Your task to perform on an android device: Open wifi settings Image 0: 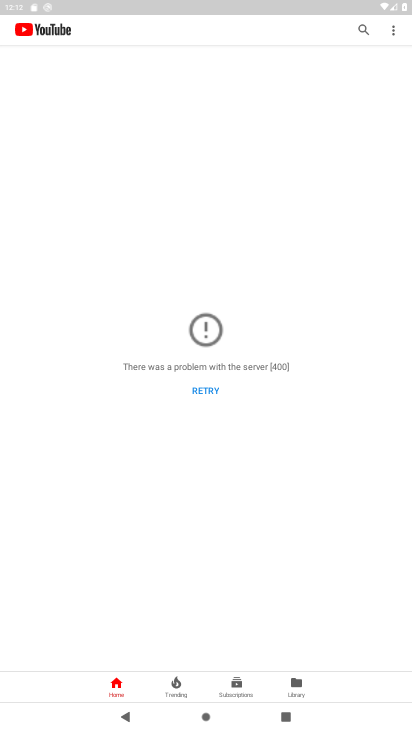
Step 0: press home button
Your task to perform on an android device: Open wifi settings Image 1: 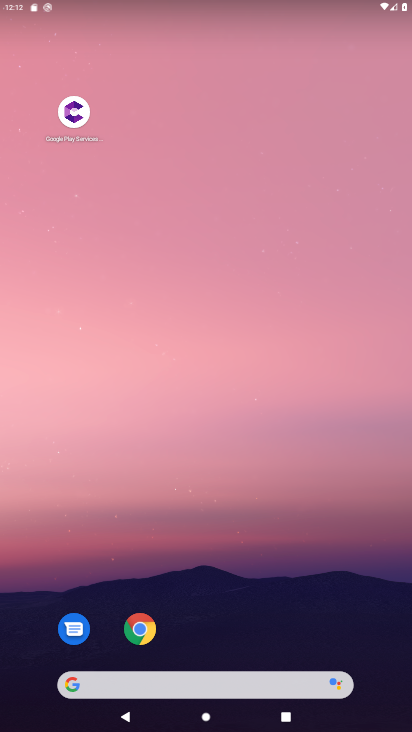
Step 1: drag from (271, 615) to (229, 95)
Your task to perform on an android device: Open wifi settings Image 2: 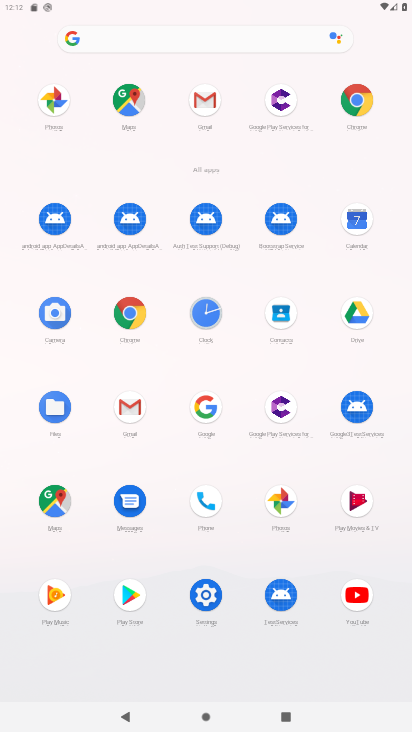
Step 2: click (208, 615)
Your task to perform on an android device: Open wifi settings Image 3: 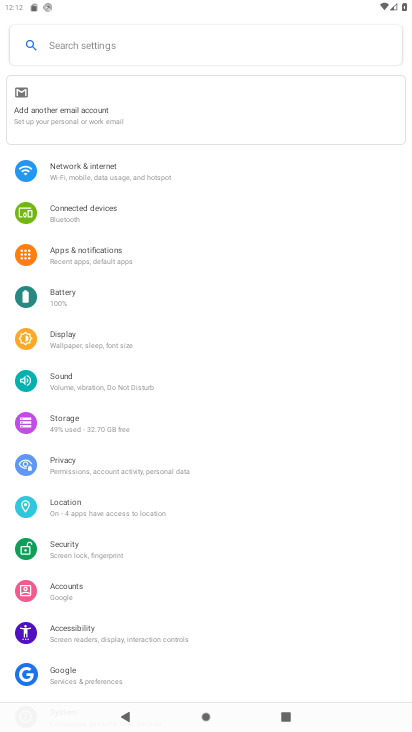
Step 3: click (163, 179)
Your task to perform on an android device: Open wifi settings Image 4: 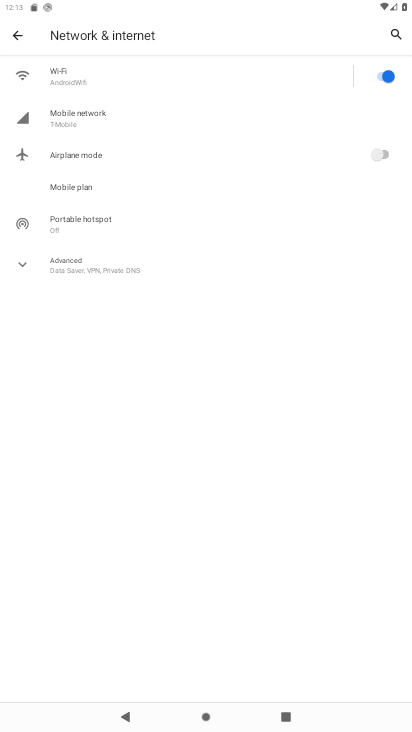
Step 4: click (169, 77)
Your task to perform on an android device: Open wifi settings Image 5: 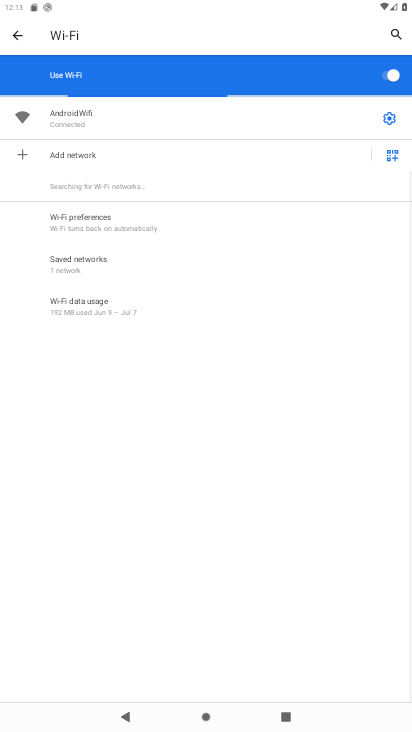
Step 5: task complete